Your task to perform on an android device: check the backup settings in the google photos Image 0: 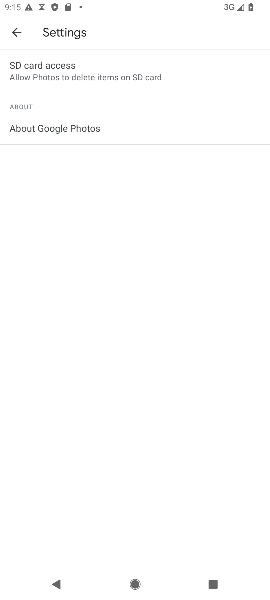
Step 0: press home button
Your task to perform on an android device: check the backup settings in the google photos Image 1: 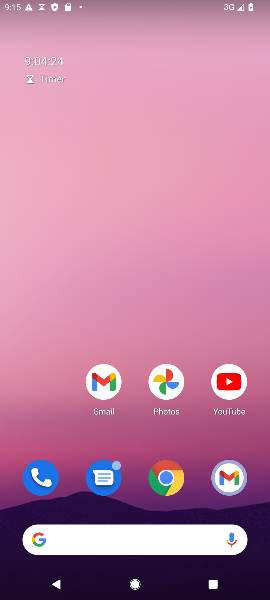
Step 1: drag from (191, 341) to (126, 37)
Your task to perform on an android device: check the backup settings in the google photos Image 2: 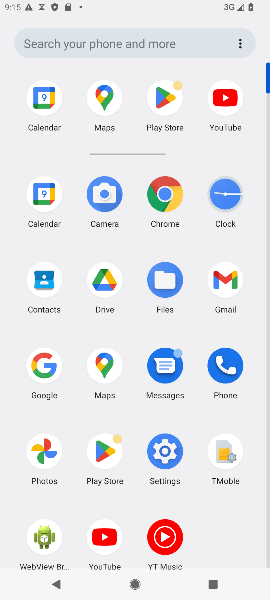
Step 2: click (53, 463)
Your task to perform on an android device: check the backup settings in the google photos Image 3: 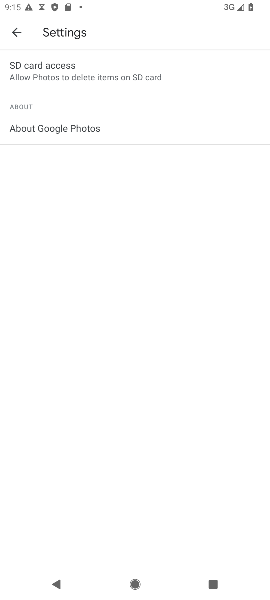
Step 3: click (14, 28)
Your task to perform on an android device: check the backup settings in the google photos Image 4: 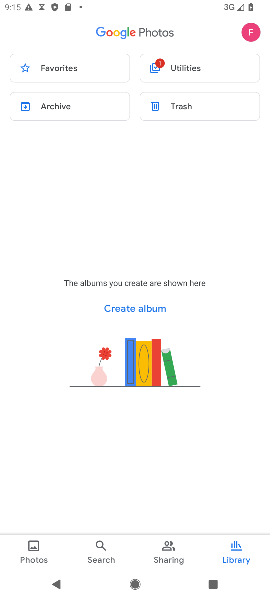
Step 4: click (246, 28)
Your task to perform on an android device: check the backup settings in the google photos Image 5: 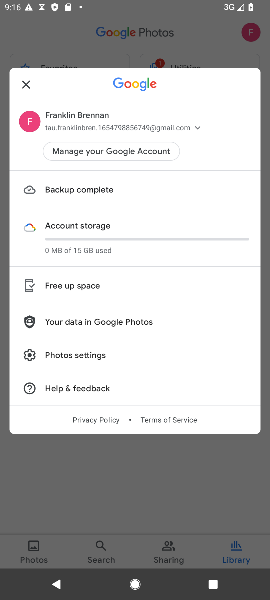
Step 5: click (87, 356)
Your task to perform on an android device: check the backup settings in the google photos Image 6: 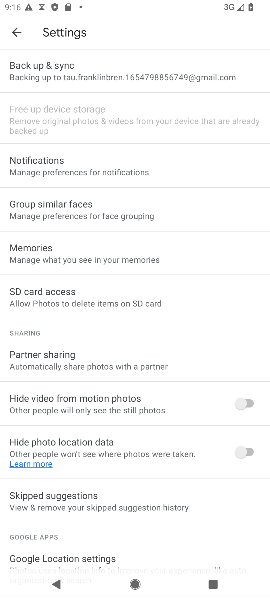
Step 6: click (60, 60)
Your task to perform on an android device: check the backup settings in the google photos Image 7: 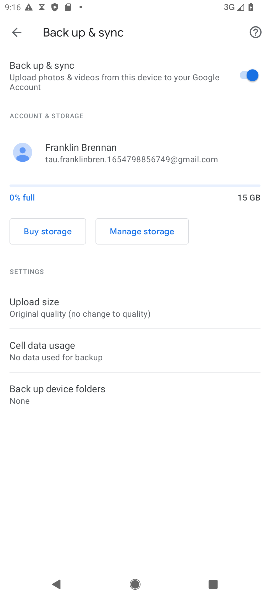
Step 7: task complete